Your task to perform on an android device: toggle notifications settings in the gmail app Image 0: 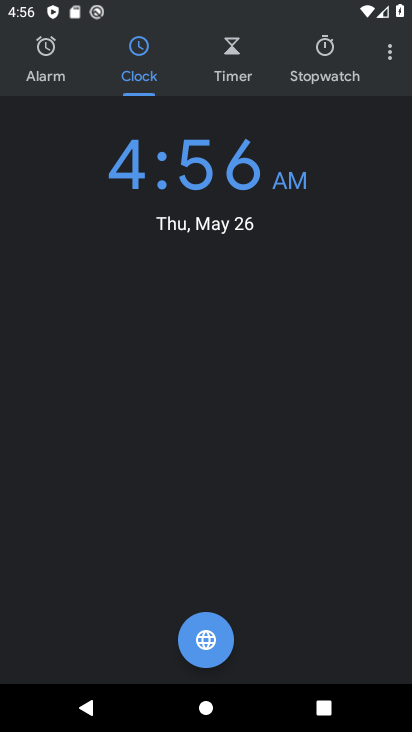
Step 0: press home button
Your task to perform on an android device: toggle notifications settings in the gmail app Image 1: 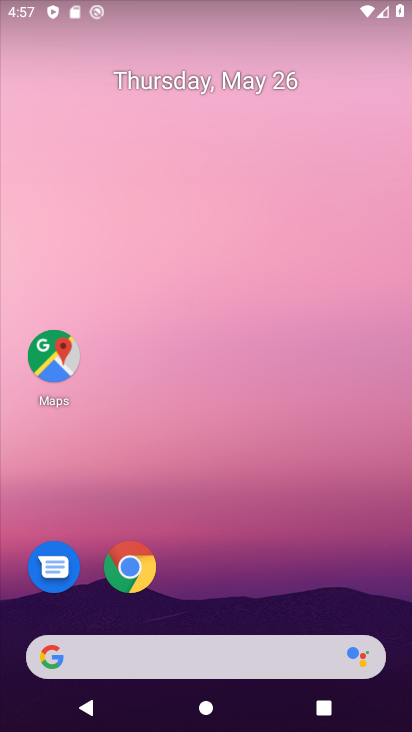
Step 1: drag from (206, 237) to (201, 79)
Your task to perform on an android device: toggle notifications settings in the gmail app Image 2: 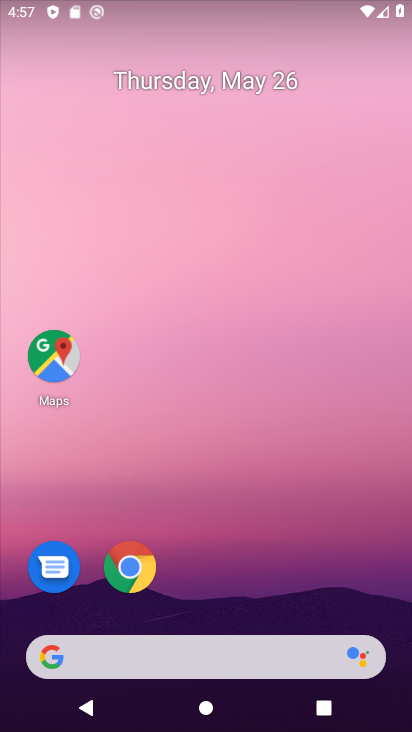
Step 2: drag from (181, 608) to (186, 226)
Your task to perform on an android device: toggle notifications settings in the gmail app Image 3: 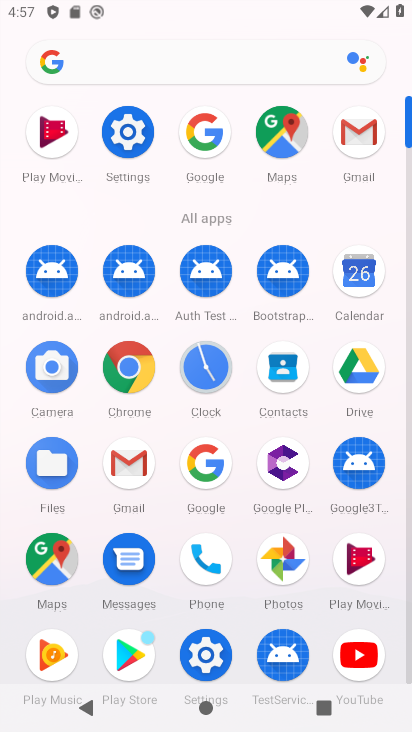
Step 3: click (357, 145)
Your task to perform on an android device: toggle notifications settings in the gmail app Image 4: 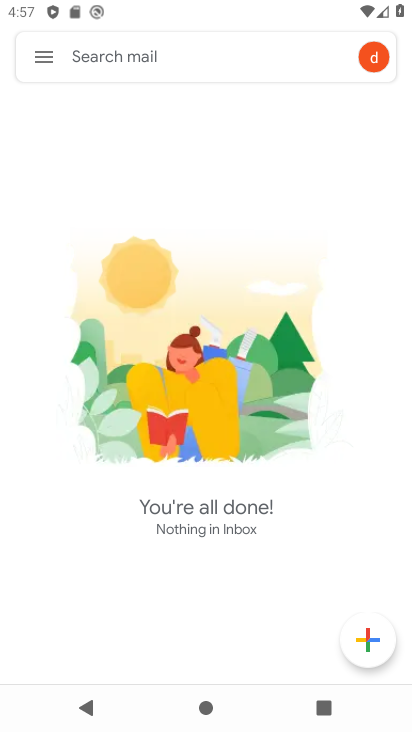
Step 4: click (45, 62)
Your task to perform on an android device: toggle notifications settings in the gmail app Image 5: 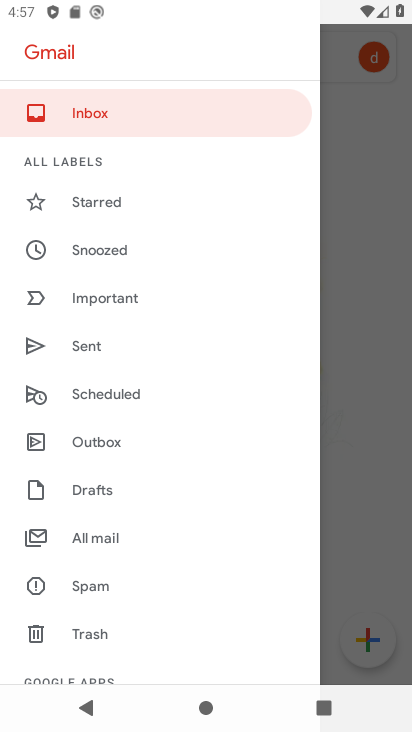
Step 5: drag from (166, 578) to (165, 262)
Your task to perform on an android device: toggle notifications settings in the gmail app Image 6: 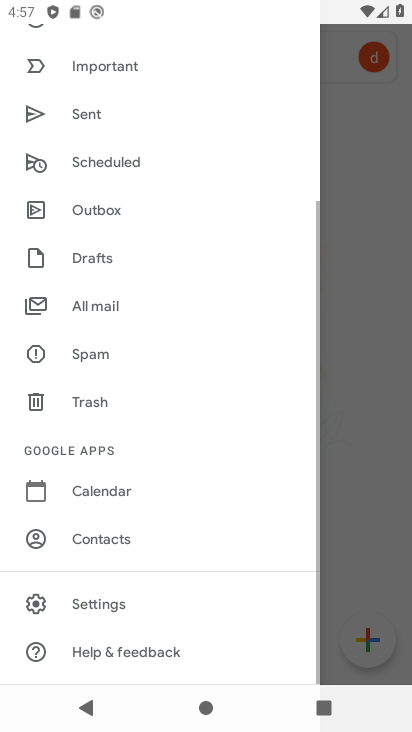
Step 6: click (94, 605)
Your task to perform on an android device: toggle notifications settings in the gmail app Image 7: 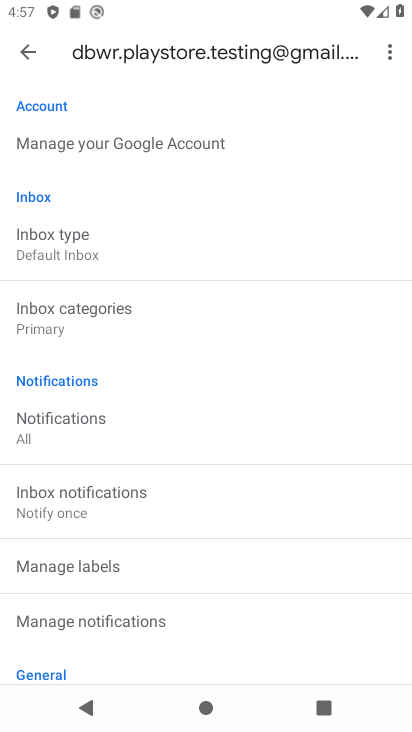
Step 7: click (25, 56)
Your task to perform on an android device: toggle notifications settings in the gmail app Image 8: 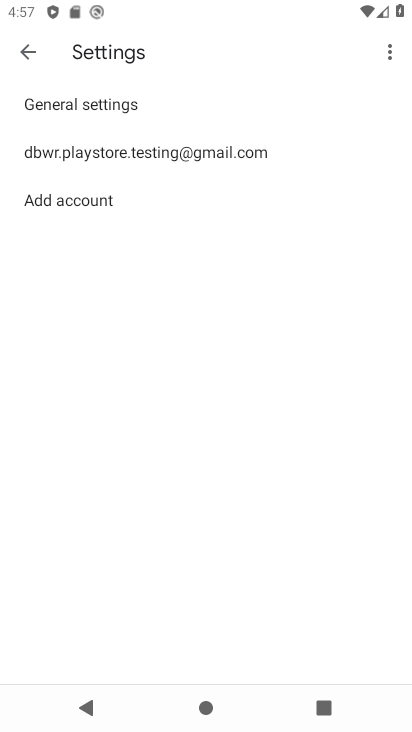
Step 8: click (72, 109)
Your task to perform on an android device: toggle notifications settings in the gmail app Image 9: 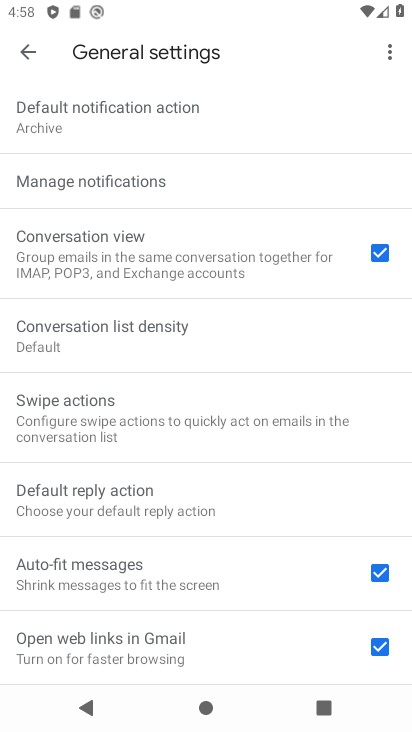
Step 9: click (85, 181)
Your task to perform on an android device: toggle notifications settings in the gmail app Image 10: 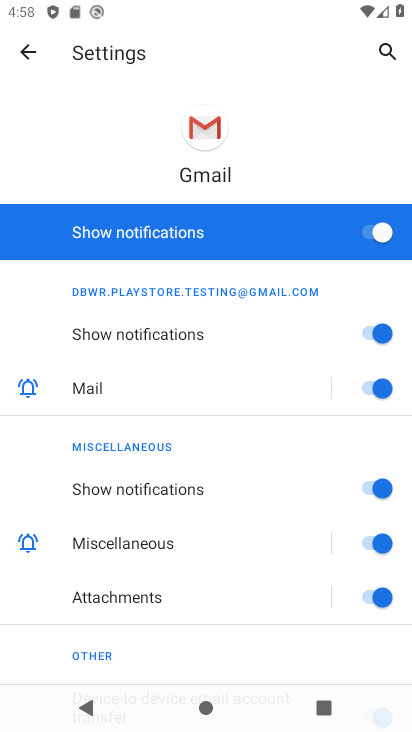
Step 10: click (377, 232)
Your task to perform on an android device: toggle notifications settings in the gmail app Image 11: 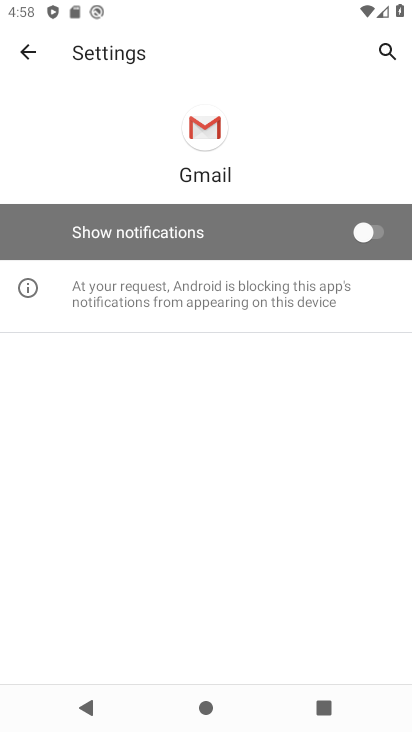
Step 11: task complete